Your task to perform on an android device: turn on notifications settings in the gmail app Image 0: 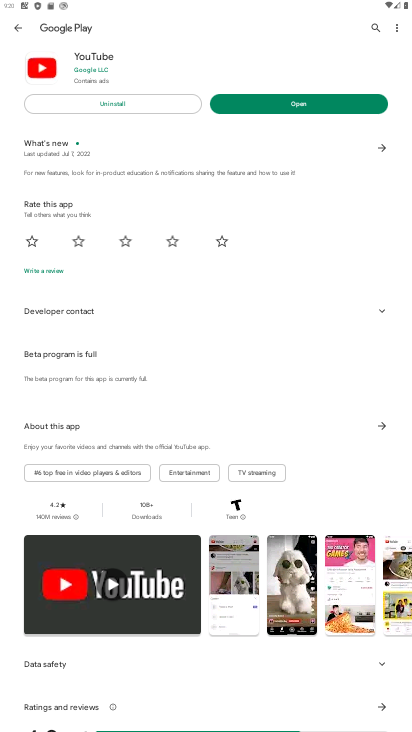
Step 0: drag from (216, 7) to (252, 559)
Your task to perform on an android device: turn on notifications settings in the gmail app Image 1: 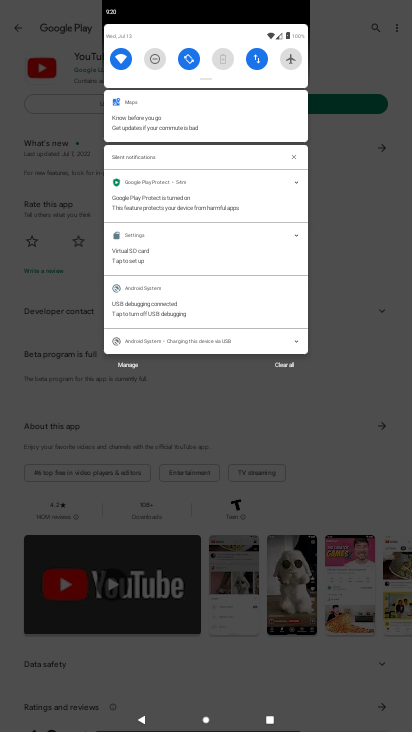
Step 1: drag from (186, 37) to (261, 487)
Your task to perform on an android device: turn on notifications settings in the gmail app Image 2: 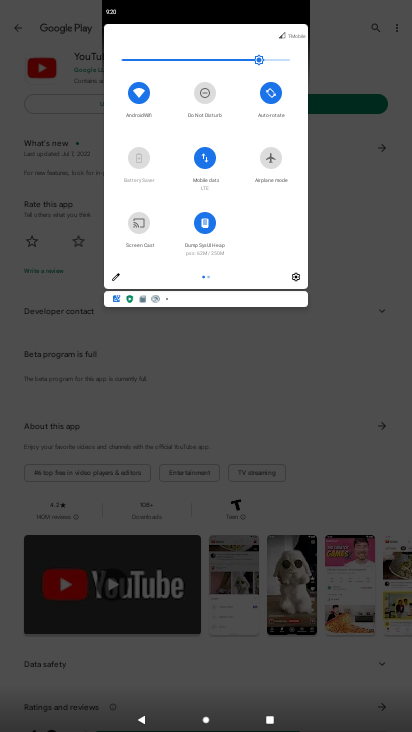
Step 2: click (299, 277)
Your task to perform on an android device: turn on notifications settings in the gmail app Image 3: 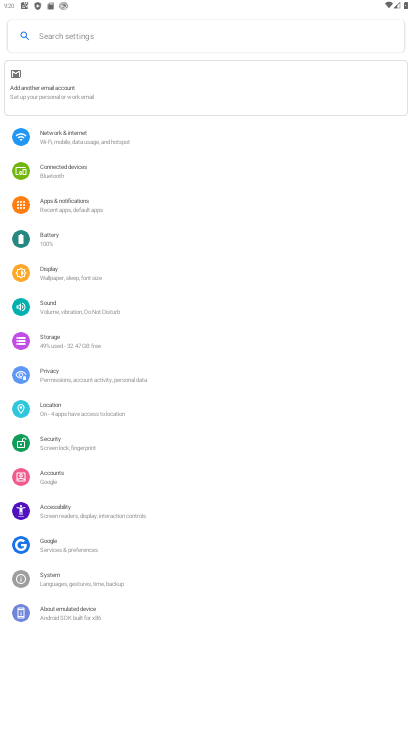
Step 3: click (111, 201)
Your task to perform on an android device: turn on notifications settings in the gmail app Image 4: 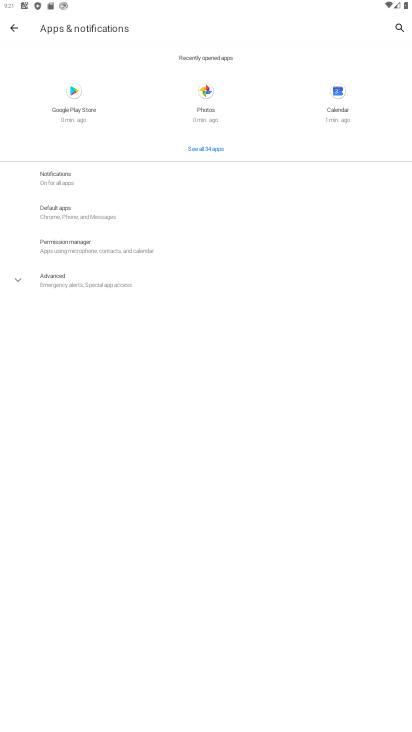
Step 4: click (215, 145)
Your task to perform on an android device: turn on notifications settings in the gmail app Image 5: 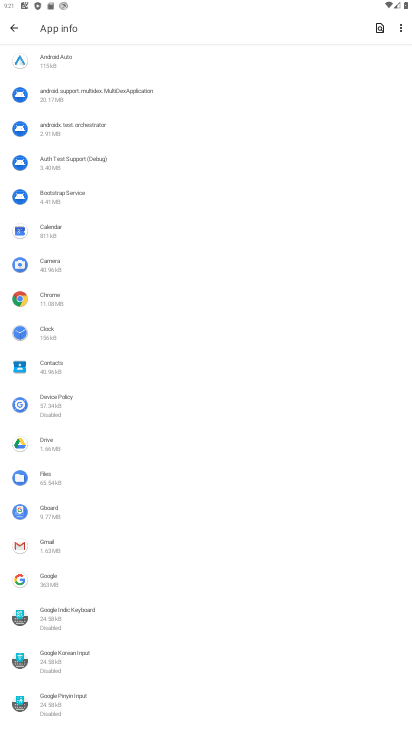
Step 5: click (58, 549)
Your task to perform on an android device: turn on notifications settings in the gmail app Image 6: 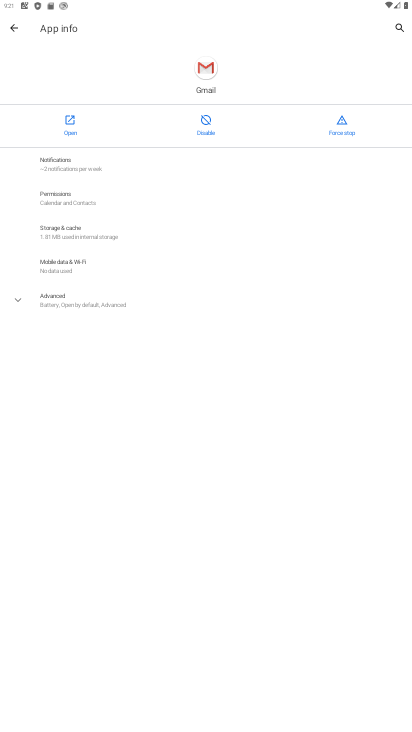
Step 6: click (128, 165)
Your task to perform on an android device: turn on notifications settings in the gmail app Image 7: 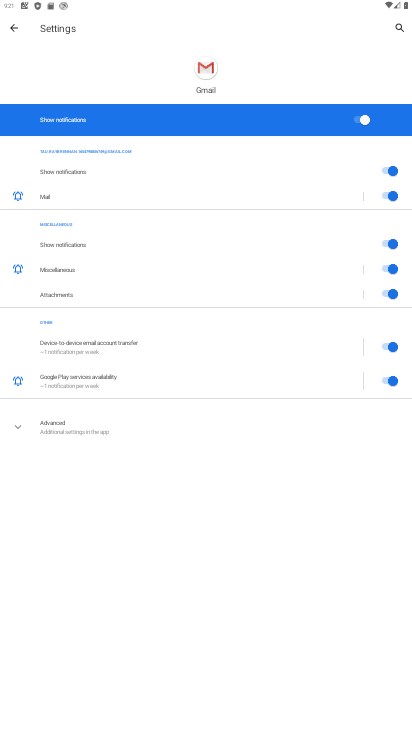
Step 7: task complete